Your task to perform on an android device: Open Google Maps Image 0: 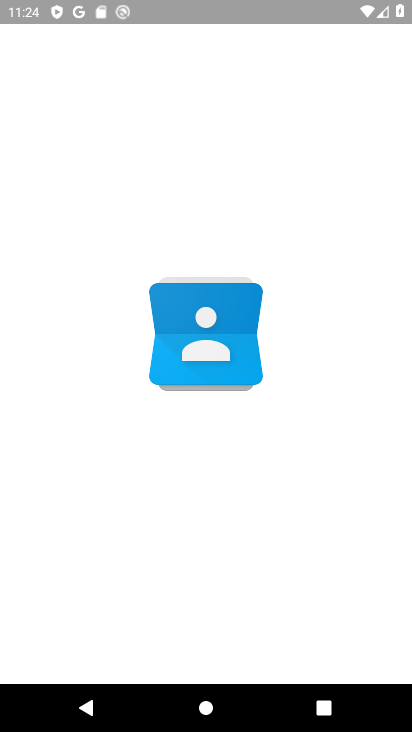
Step 0: click (230, 82)
Your task to perform on an android device: Open Google Maps Image 1: 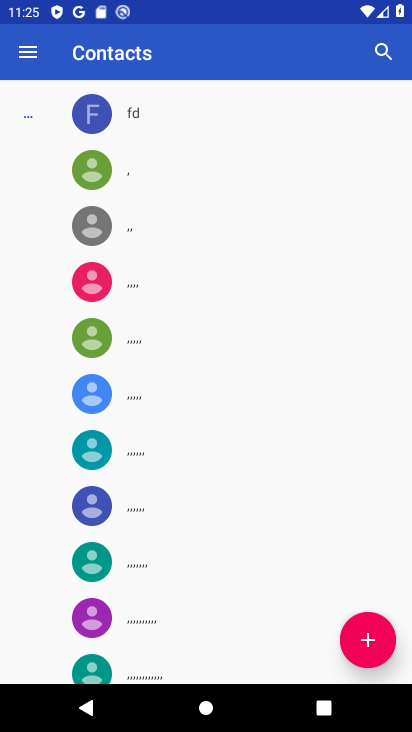
Step 1: press home button
Your task to perform on an android device: Open Google Maps Image 2: 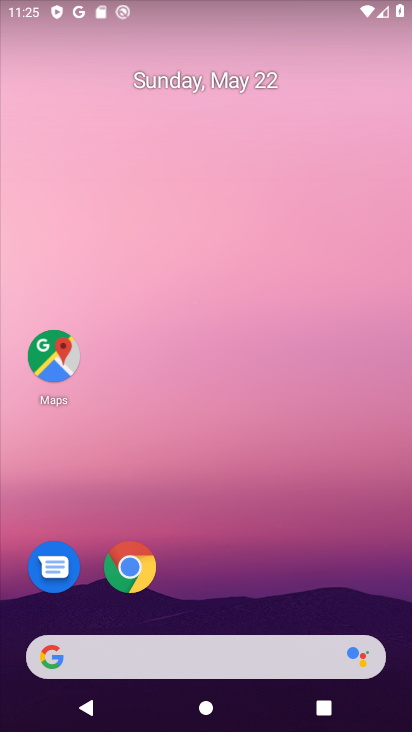
Step 2: click (46, 356)
Your task to perform on an android device: Open Google Maps Image 3: 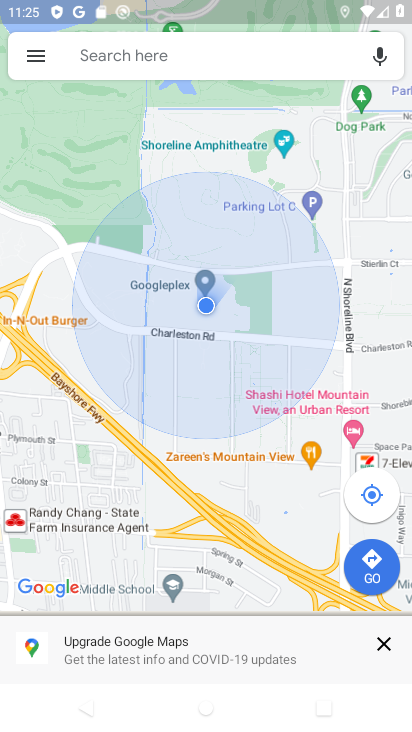
Step 3: task complete